Your task to perform on an android device: check storage Image 0: 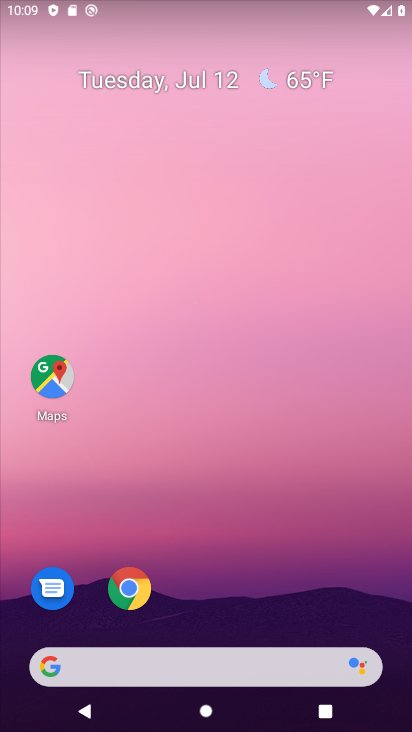
Step 0: click (125, 657)
Your task to perform on an android device: check storage Image 1: 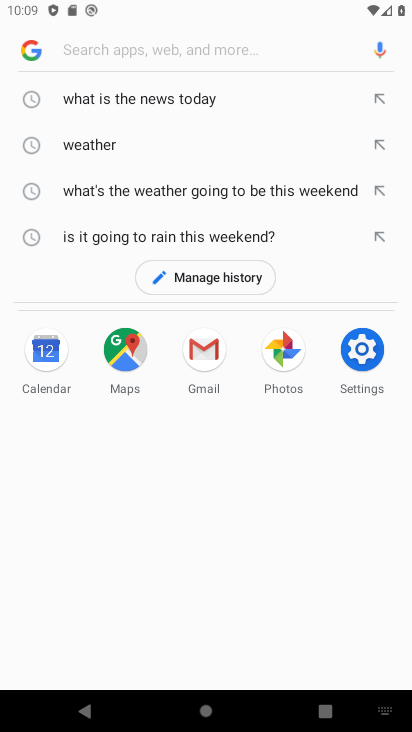
Step 1: press home button
Your task to perform on an android device: check storage Image 2: 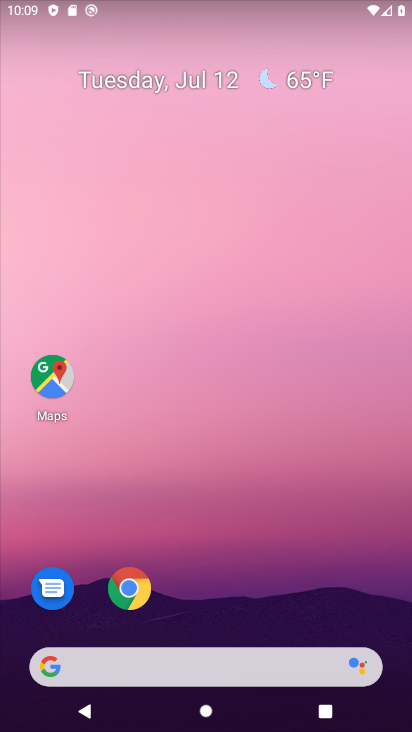
Step 2: drag from (40, 711) to (271, 118)
Your task to perform on an android device: check storage Image 3: 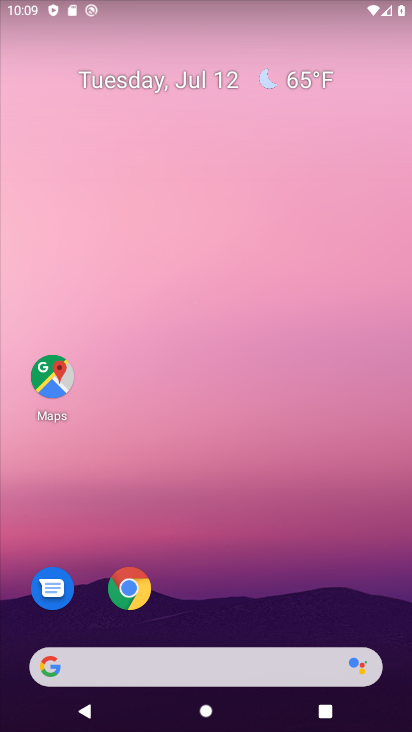
Step 3: drag from (34, 703) to (261, 14)
Your task to perform on an android device: check storage Image 4: 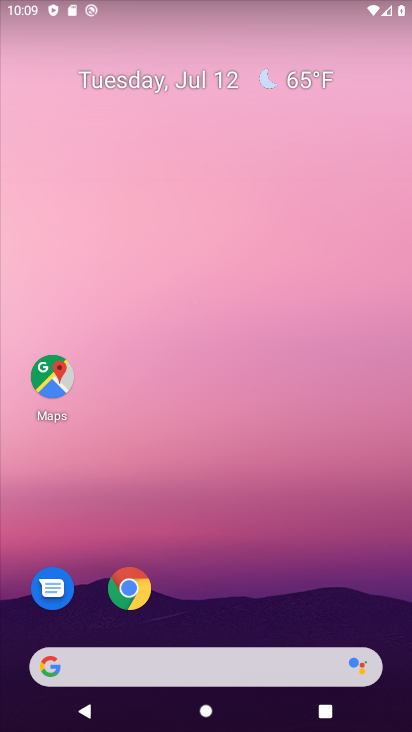
Step 4: drag from (37, 699) to (209, 82)
Your task to perform on an android device: check storage Image 5: 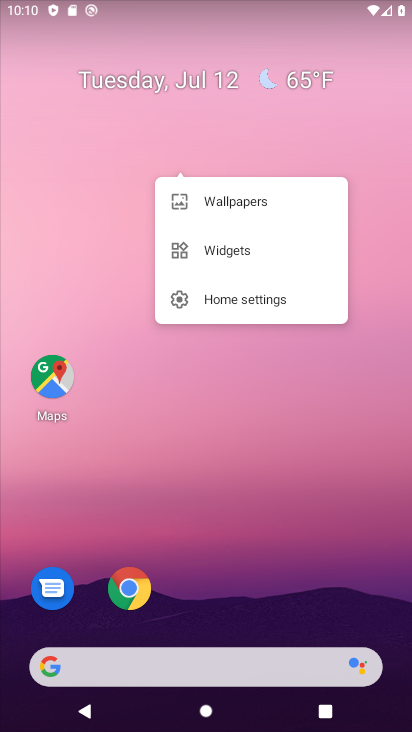
Step 5: click (160, 163)
Your task to perform on an android device: check storage Image 6: 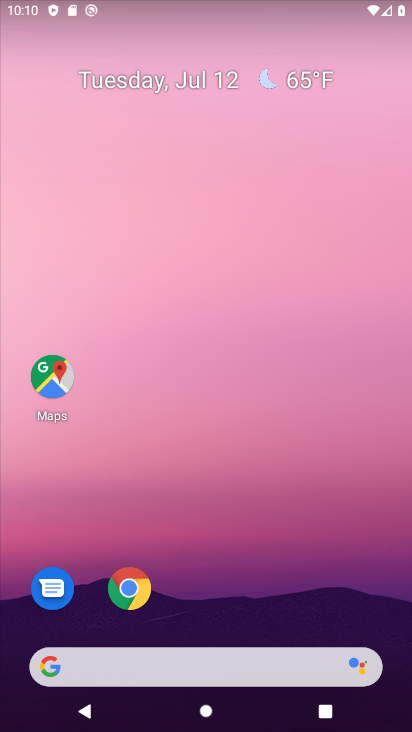
Step 6: task complete